Your task to perform on an android device: turn off location history Image 0: 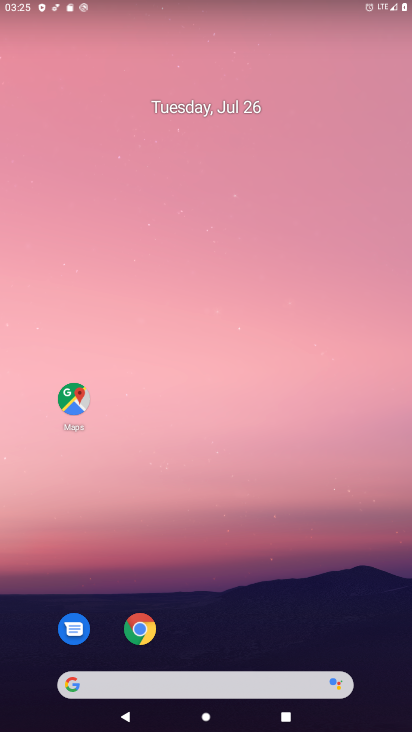
Step 0: drag from (274, 628) to (276, 221)
Your task to perform on an android device: turn off location history Image 1: 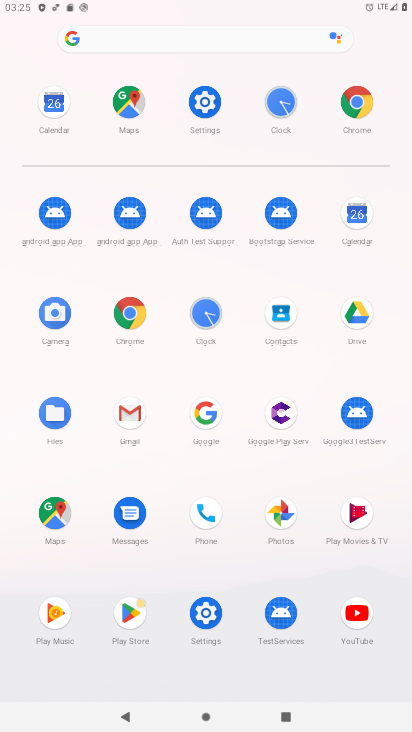
Step 1: click (47, 508)
Your task to perform on an android device: turn off location history Image 2: 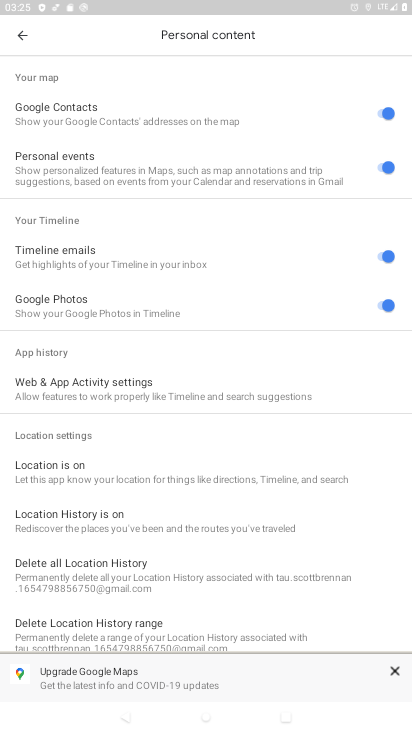
Step 2: click (23, 37)
Your task to perform on an android device: turn off location history Image 3: 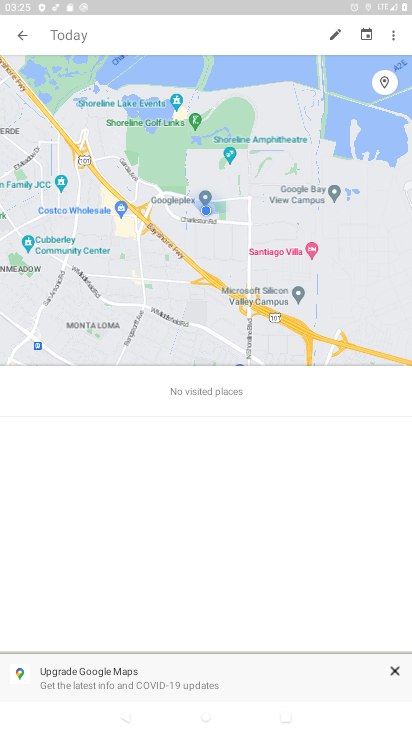
Step 3: click (395, 33)
Your task to perform on an android device: turn off location history Image 4: 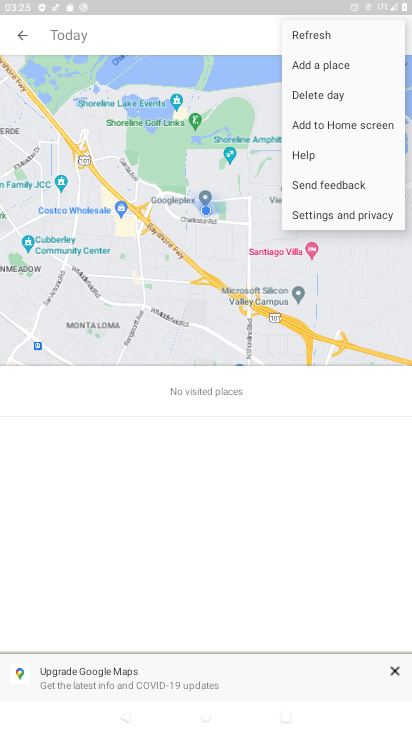
Step 4: click (314, 210)
Your task to perform on an android device: turn off location history Image 5: 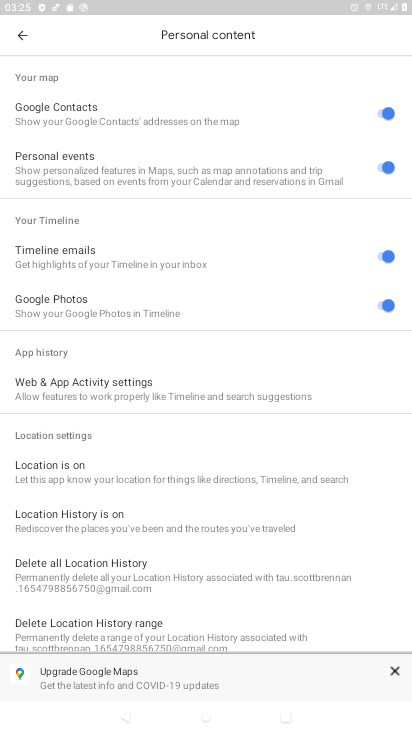
Step 5: click (76, 519)
Your task to perform on an android device: turn off location history Image 6: 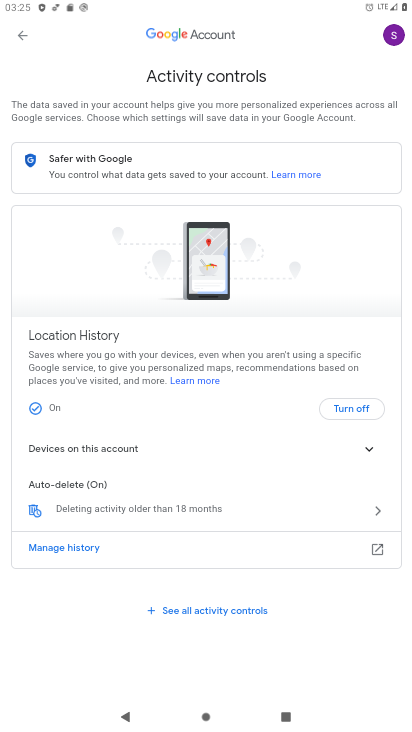
Step 6: click (351, 404)
Your task to perform on an android device: turn off location history Image 7: 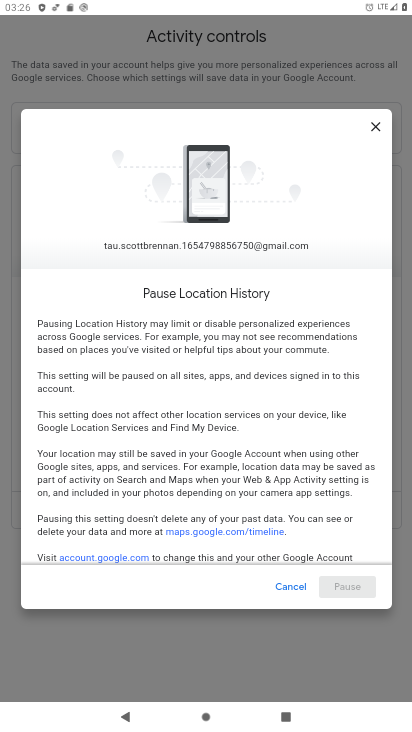
Step 7: drag from (287, 517) to (272, 221)
Your task to perform on an android device: turn off location history Image 8: 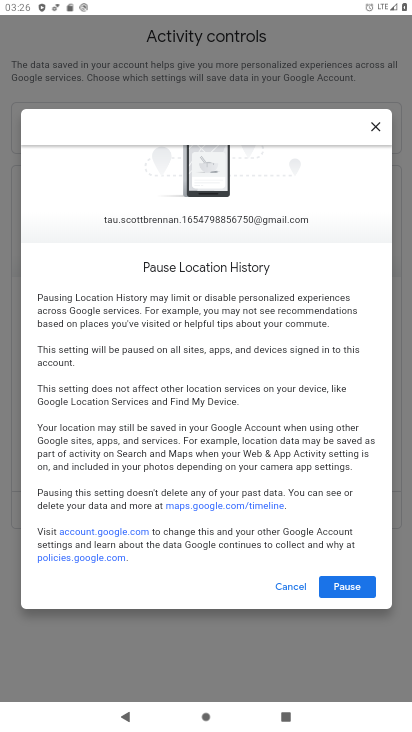
Step 8: click (349, 586)
Your task to perform on an android device: turn off location history Image 9: 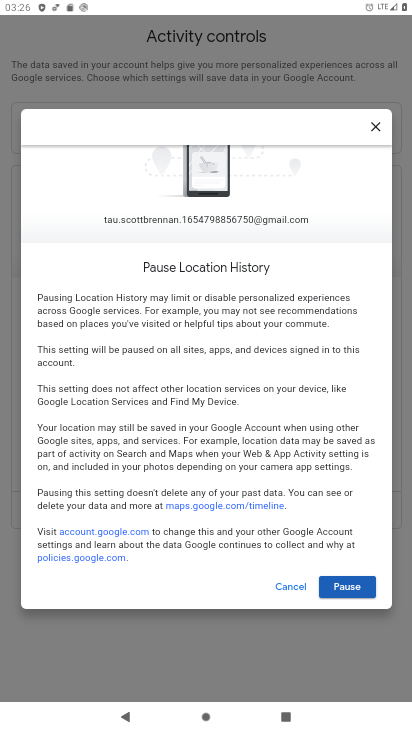
Step 9: click (349, 586)
Your task to perform on an android device: turn off location history Image 10: 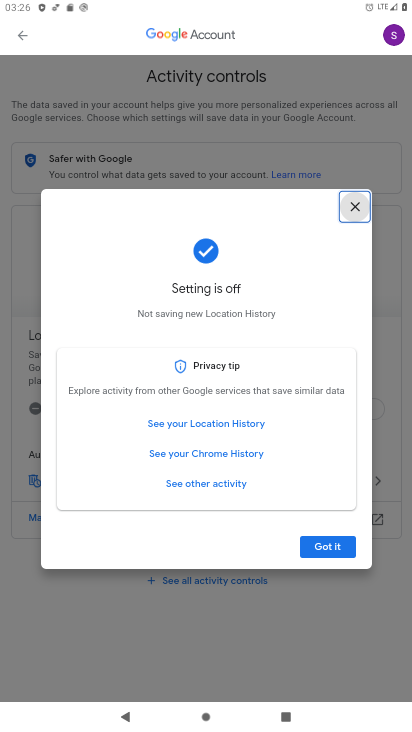
Step 10: click (333, 542)
Your task to perform on an android device: turn off location history Image 11: 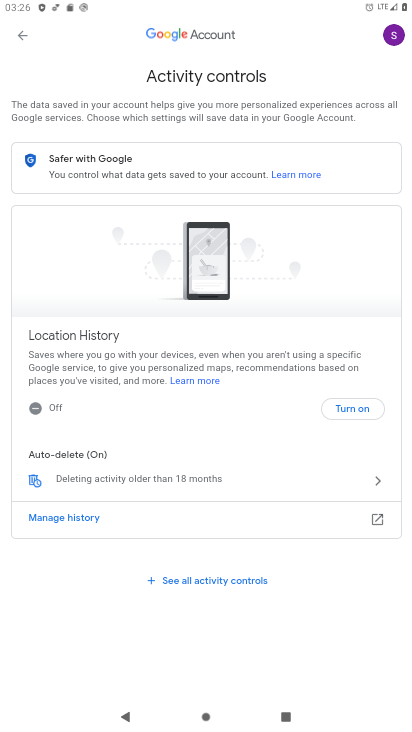
Step 11: task complete